Your task to perform on an android device: Clear the cart on costco.com. Search for usb-c to usb-b on costco.com, select the first entry, add it to the cart, then select checkout. Image 0: 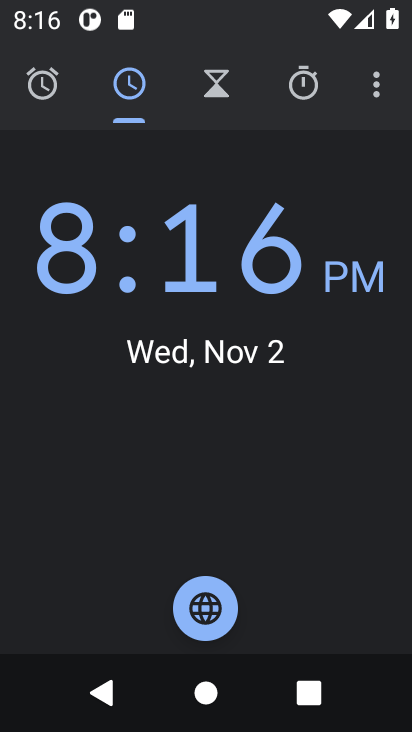
Step 0: press home button
Your task to perform on an android device: Clear the cart on costco.com. Search for usb-c to usb-b on costco.com, select the first entry, add it to the cart, then select checkout. Image 1: 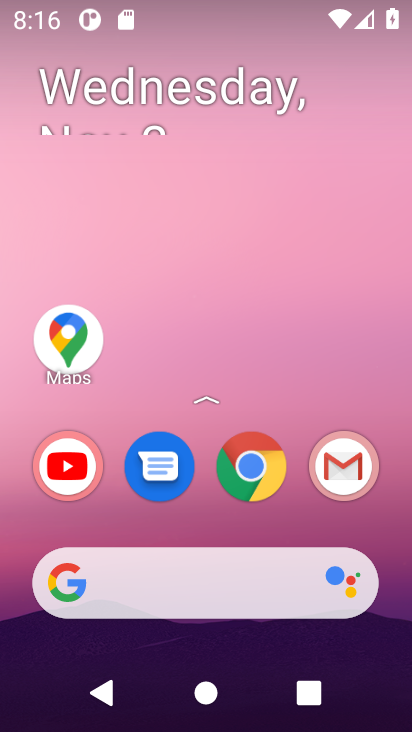
Step 1: click (269, 578)
Your task to perform on an android device: Clear the cart on costco.com. Search for usb-c to usb-b on costco.com, select the first entry, add it to the cart, then select checkout. Image 2: 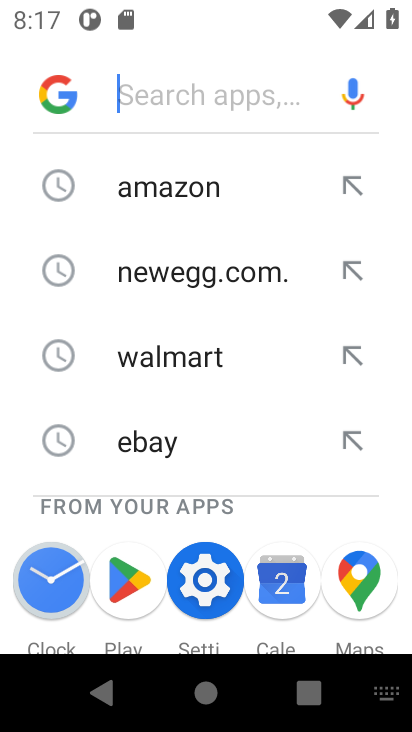
Step 2: type "costco.com"
Your task to perform on an android device: Clear the cart on costco.com. Search for usb-c to usb-b on costco.com, select the first entry, add it to the cart, then select checkout. Image 3: 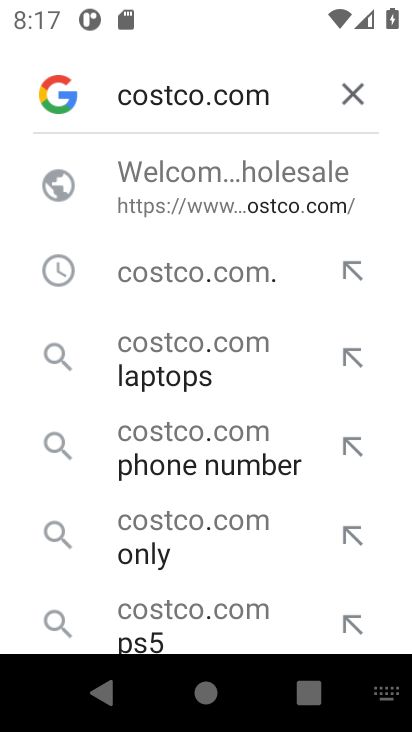
Step 3: type ""
Your task to perform on an android device: Clear the cart on costco.com. Search for usb-c to usb-b on costco.com, select the first entry, add it to the cart, then select checkout. Image 4: 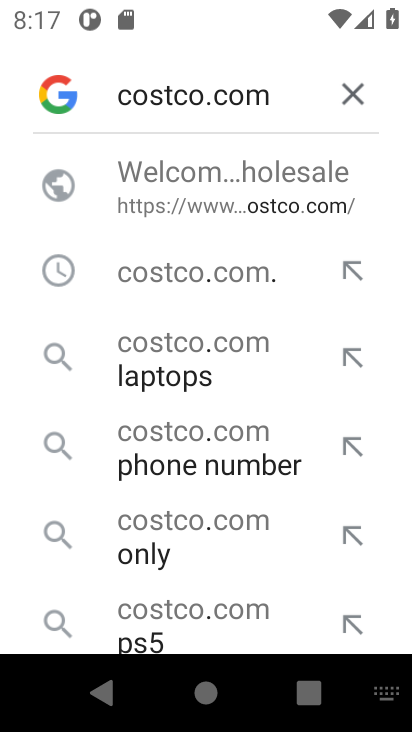
Step 4: click (259, 218)
Your task to perform on an android device: Clear the cart on costco.com. Search for usb-c to usb-b on costco.com, select the first entry, add it to the cart, then select checkout. Image 5: 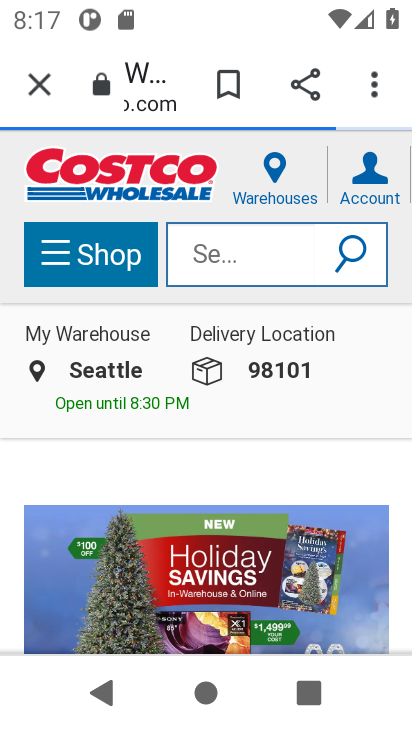
Step 5: click (251, 260)
Your task to perform on an android device: Clear the cart on costco.com. Search for usb-c to usb-b on costco.com, select the first entry, add it to the cart, then select checkout. Image 6: 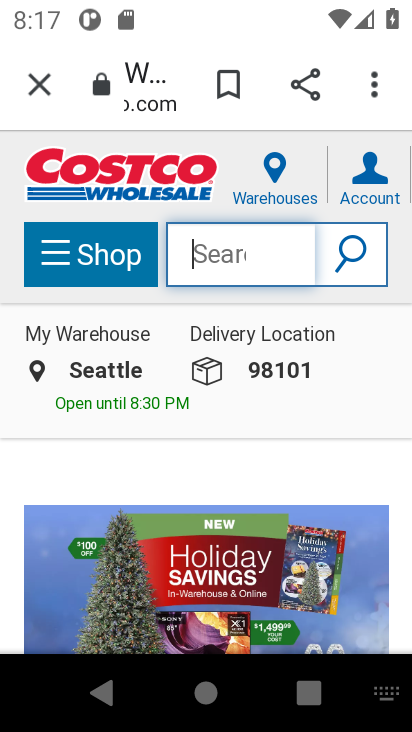
Step 6: type "usb-c to usb-b"
Your task to perform on an android device: Clear the cart on costco.com. Search for usb-c to usb-b on costco.com, select the first entry, add it to the cart, then select checkout. Image 7: 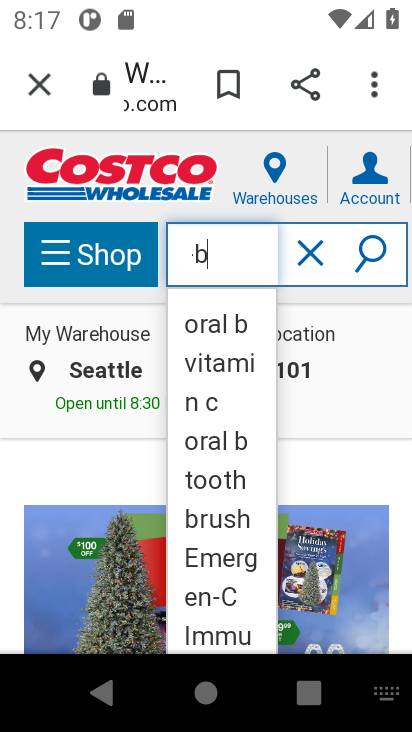
Step 7: click (363, 254)
Your task to perform on an android device: Clear the cart on costco.com. Search for usb-c to usb-b on costco.com, select the first entry, add it to the cart, then select checkout. Image 8: 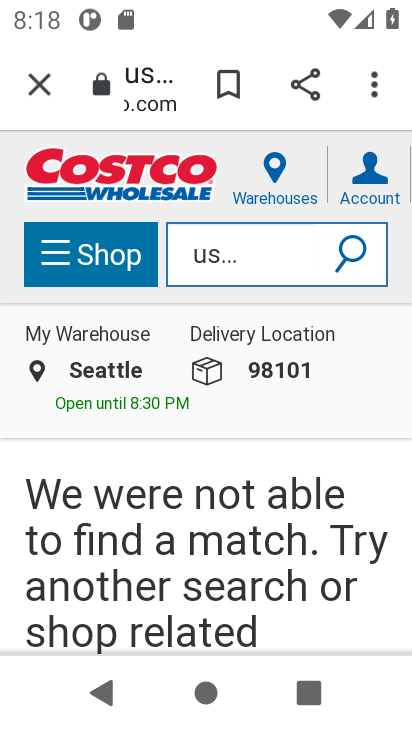
Step 8: drag from (239, 556) to (242, 235)
Your task to perform on an android device: Clear the cart on costco.com. Search for usb-c to usb-b on costco.com, select the first entry, add it to the cart, then select checkout. Image 9: 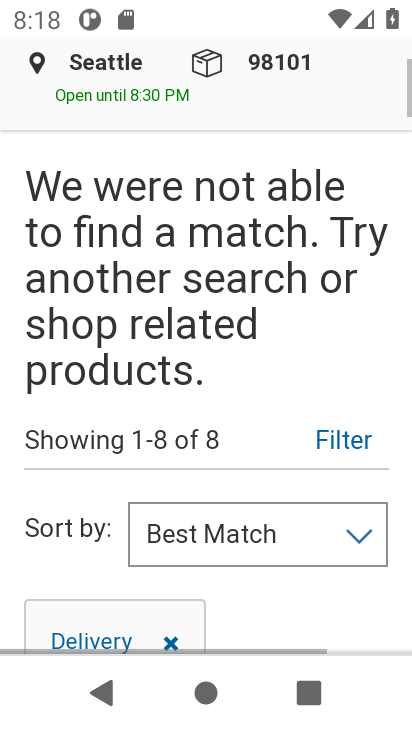
Step 9: drag from (267, 512) to (278, 342)
Your task to perform on an android device: Clear the cart on costco.com. Search for usb-c to usb-b on costco.com, select the first entry, add it to the cart, then select checkout. Image 10: 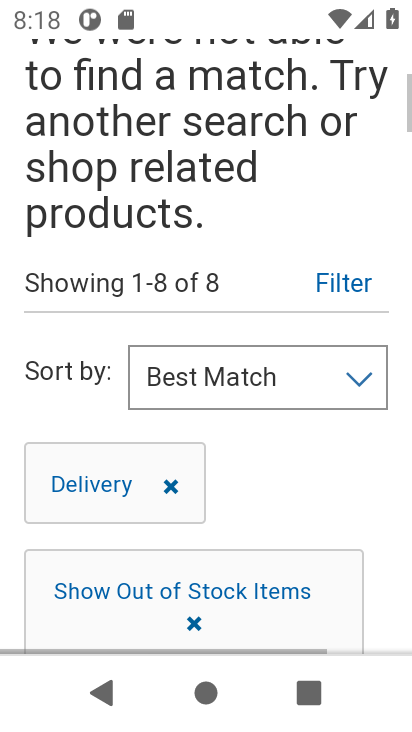
Step 10: drag from (285, 457) to (249, 177)
Your task to perform on an android device: Clear the cart on costco.com. Search for usb-c to usb-b on costco.com, select the first entry, add it to the cart, then select checkout. Image 11: 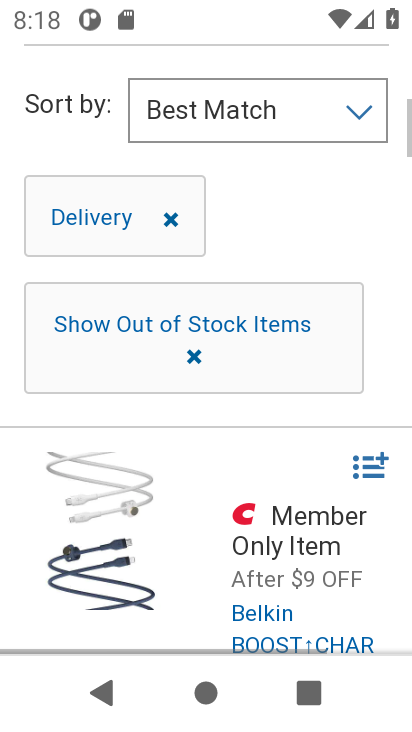
Step 11: drag from (307, 484) to (316, 304)
Your task to perform on an android device: Clear the cart on costco.com. Search for usb-c to usb-b on costco.com, select the first entry, add it to the cart, then select checkout. Image 12: 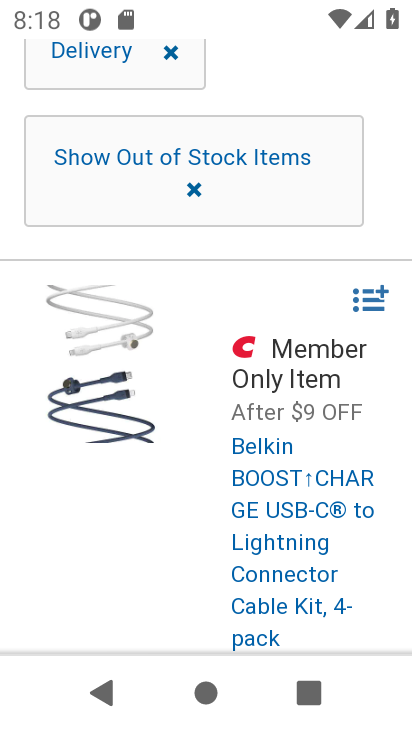
Step 12: drag from (293, 464) to (281, 279)
Your task to perform on an android device: Clear the cart on costco.com. Search for usb-c to usb-b on costco.com, select the first entry, add it to the cart, then select checkout. Image 13: 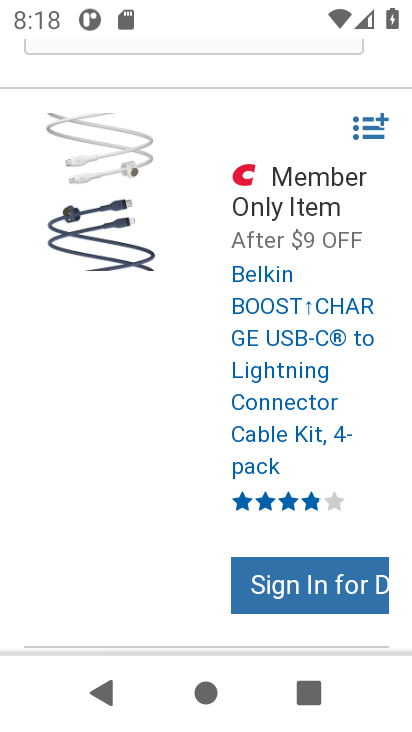
Step 13: click (300, 228)
Your task to perform on an android device: Clear the cart on costco.com. Search for usb-c to usb-b on costco.com, select the first entry, add it to the cart, then select checkout. Image 14: 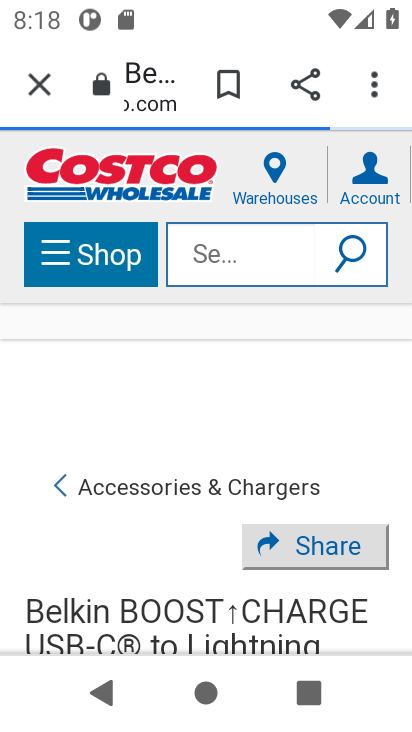
Step 14: drag from (279, 595) to (306, 297)
Your task to perform on an android device: Clear the cart on costco.com. Search for usb-c to usb-b on costco.com, select the first entry, add it to the cart, then select checkout. Image 15: 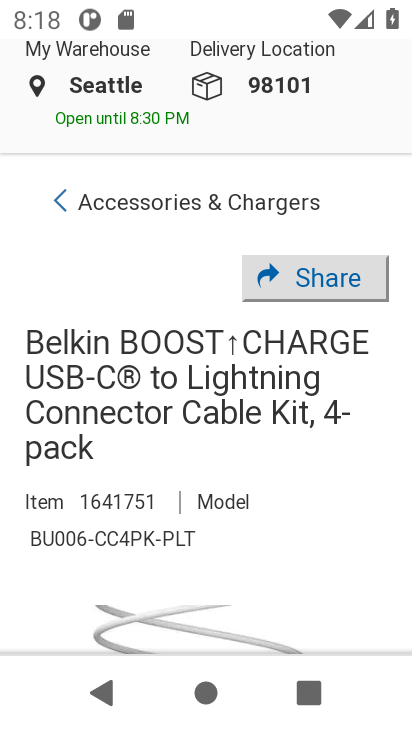
Step 15: drag from (300, 601) to (310, 358)
Your task to perform on an android device: Clear the cart on costco.com. Search for usb-c to usb-b on costco.com, select the first entry, add it to the cart, then select checkout. Image 16: 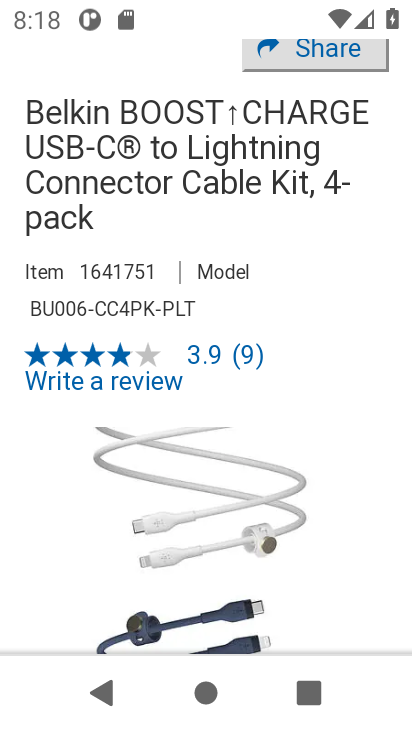
Step 16: drag from (261, 475) to (270, 370)
Your task to perform on an android device: Clear the cart on costco.com. Search for usb-c to usb-b on costco.com, select the first entry, add it to the cart, then select checkout. Image 17: 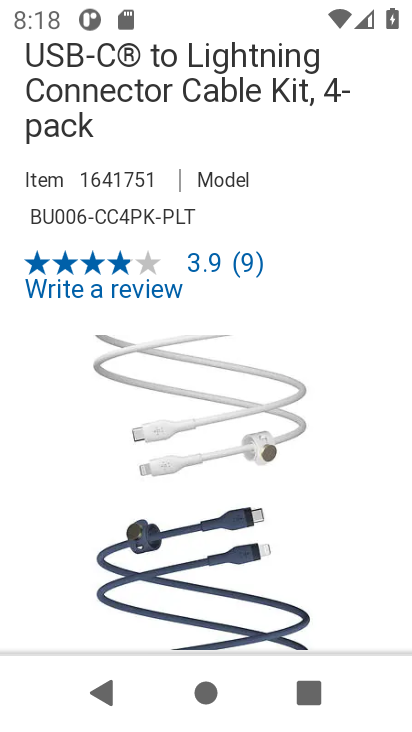
Step 17: drag from (243, 532) to (264, 397)
Your task to perform on an android device: Clear the cart on costco.com. Search for usb-c to usb-b on costco.com, select the first entry, add it to the cart, then select checkout. Image 18: 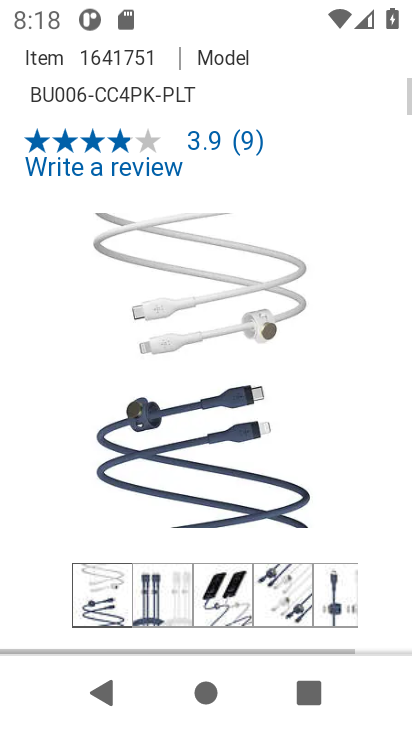
Step 18: drag from (262, 438) to (264, 377)
Your task to perform on an android device: Clear the cart on costco.com. Search for usb-c to usb-b on costco.com, select the first entry, add it to the cart, then select checkout. Image 19: 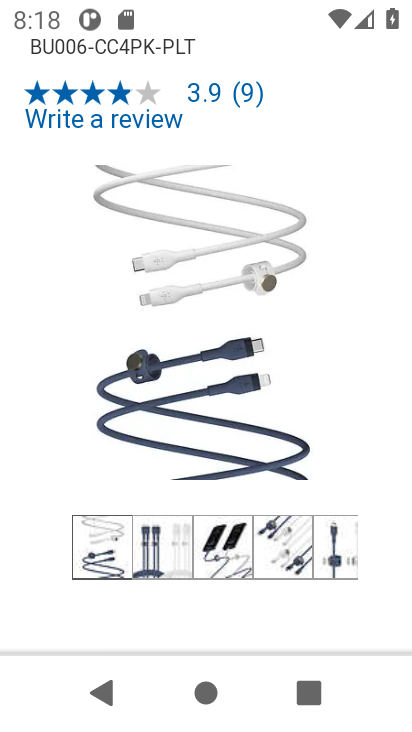
Step 19: drag from (270, 557) to (267, 300)
Your task to perform on an android device: Clear the cart on costco.com. Search for usb-c to usb-b on costco.com, select the first entry, add it to the cart, then select checkout. Image 20: 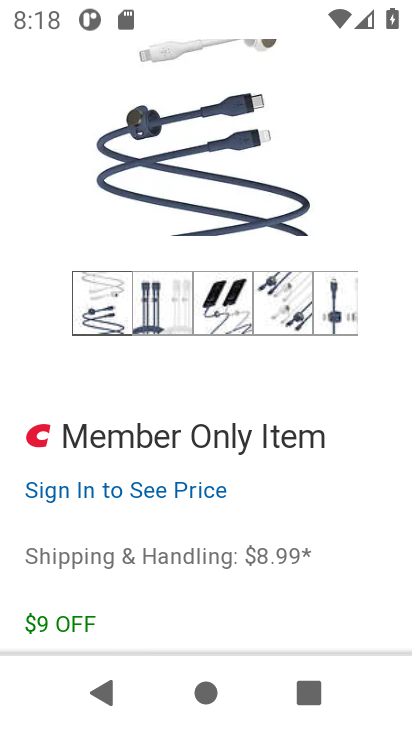
Step 20: drag from (239, 564) to (254, 248)
Your task to perform on an android device: Clear the cart on costco.com. Search for usb-c to usb-b on costco.com, select the first entry, add it to the cart, then select checkout. Image 21: 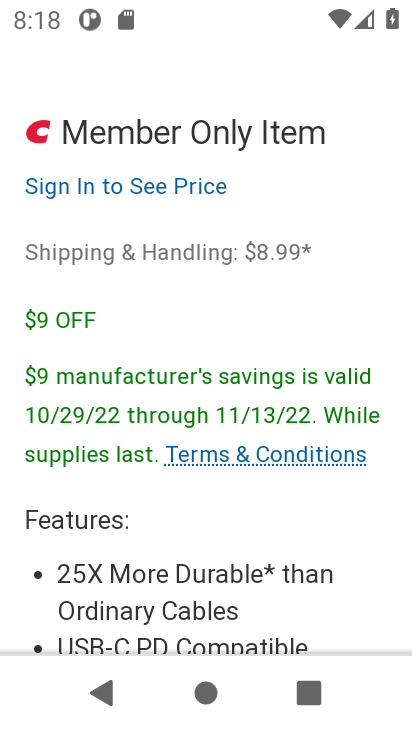
Step 21: drag from (263, 430) to (302, 194)
Your task to perform on an android device: Clear the cart on costco.com. Search for usb-c to usb-b on costco.com, select the first entry, add it to the cart, then select checkout. Image 22: 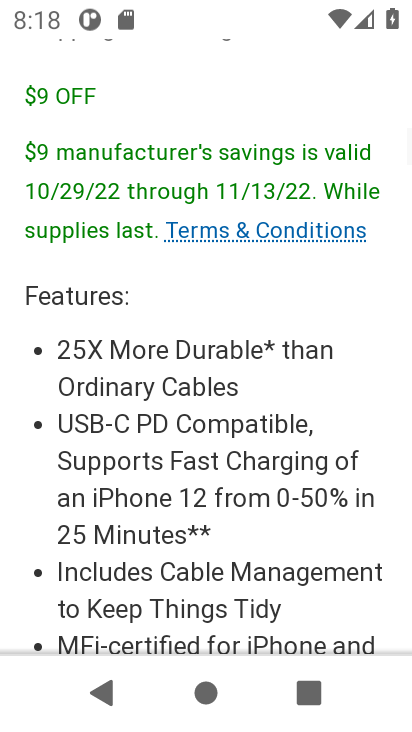
Step 22: drag from (297, 542) to (306, 304)
Your task to perform on an android device: Clear the cart on costco.com. Search for usb-c to usb-b on costco.com, select the first entry, add it to the cart, then select checkout. Image 23: 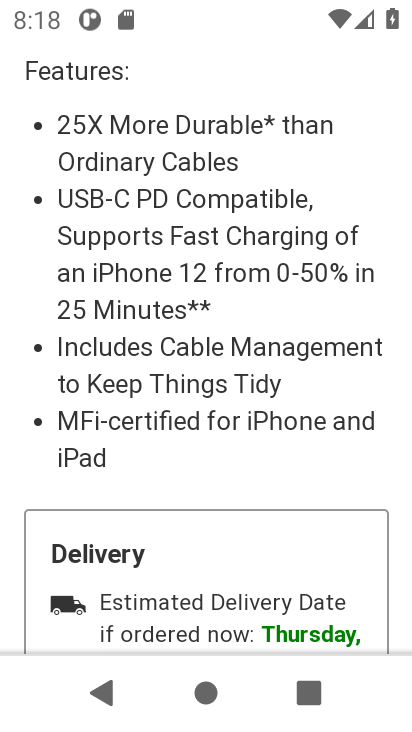
Step 23: drag from (267, 540) to (304, 199)
Your task to perform on an android device: Clear the cart on costco.com. Search for usb-c to usb-b on costco.com, select the first entry, add it to the cart, then select checkout. Image 24: 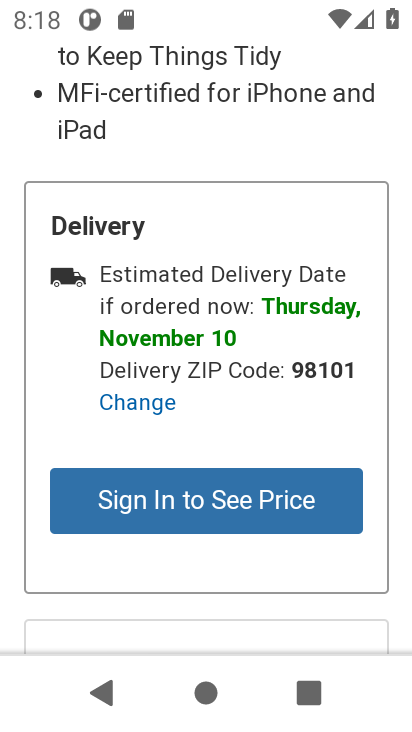
Step 24: click (216, 510)
Your task to perform on an android device: Clear the cart on costco.com. Search for usb-c to usb-b on costco.com, select the first entry, add it to the cart, then select checkout. Image 25: 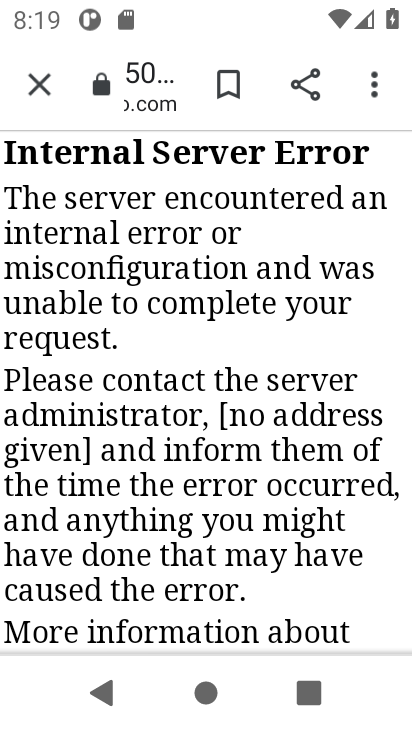
Step 25: task complete